Your task to perform on an android device: Go to Reddit.com Image 0: 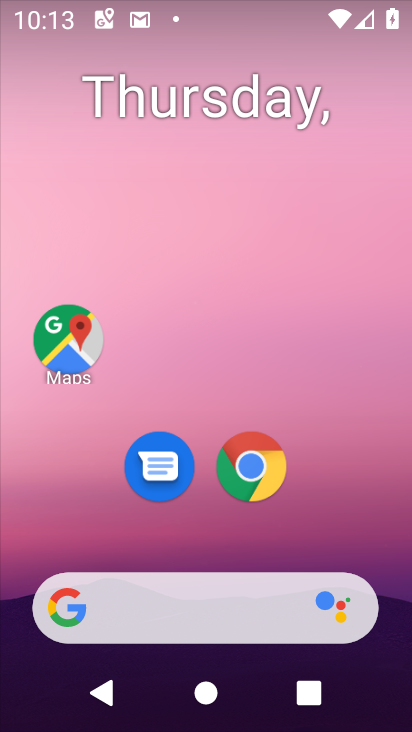
Step 0: click (256, 469)
Your task to perform on an android device: Go to Reddit.com Image 1: 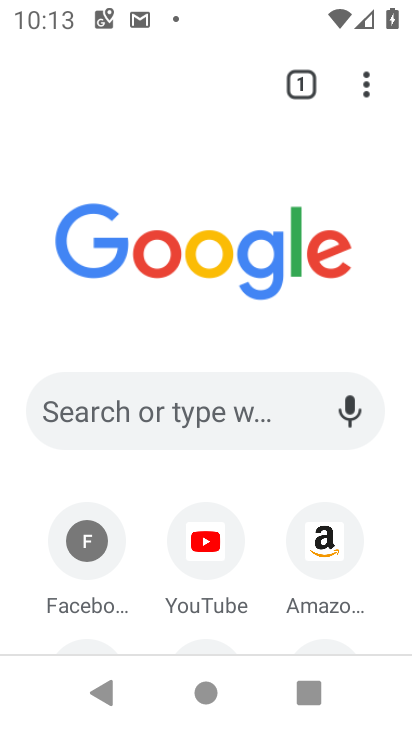
Step 1: click (203, 408)
Your task to perform on an android device: Go to Reddit.com Image 2: 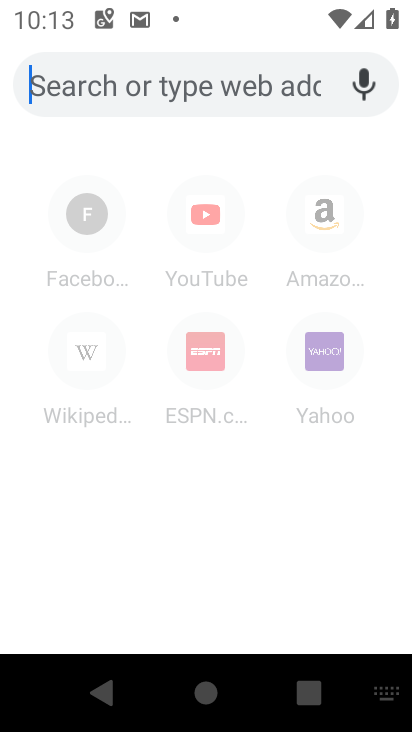
Step 2: type "Reddit.com"
Your task to perform on an android device: Go to Reddit.com Image 3: 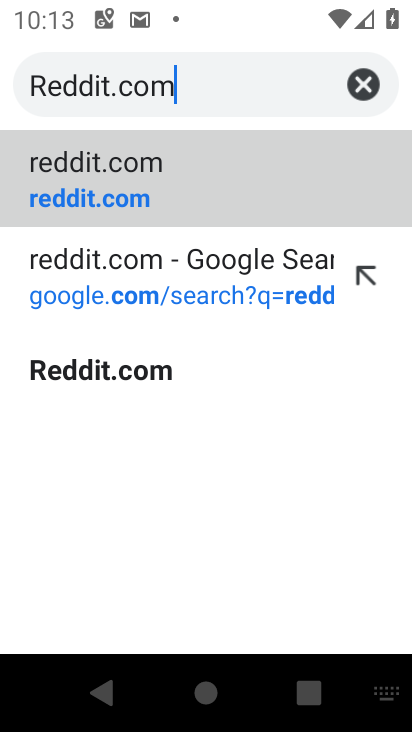
Step 3: click (123, 201)
Your task to perform on an android device: Go to Reddit.com Image 4: 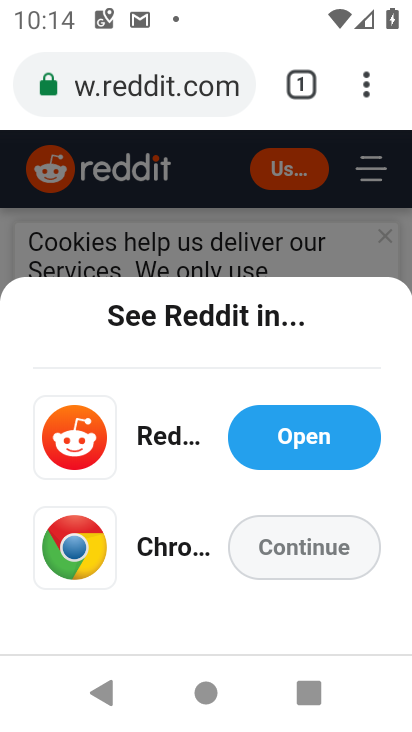
Step 4: click (335, 530)
Your task to perform on an android device: Go to Reddit.com Image 5: 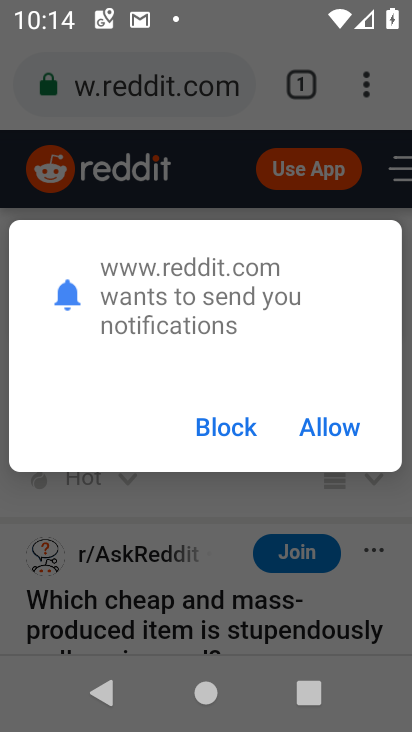
Step 5: task complete